Your task to perform on an android device: Check the news Image 0: 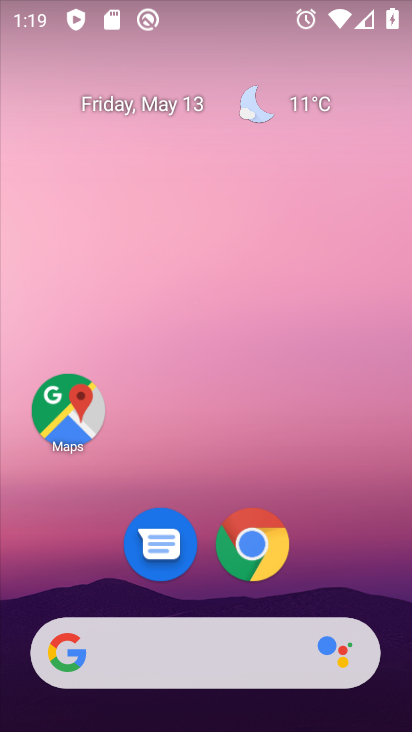
Step 0: press home button
Your task to perform on an android device: Check the news Image 1: 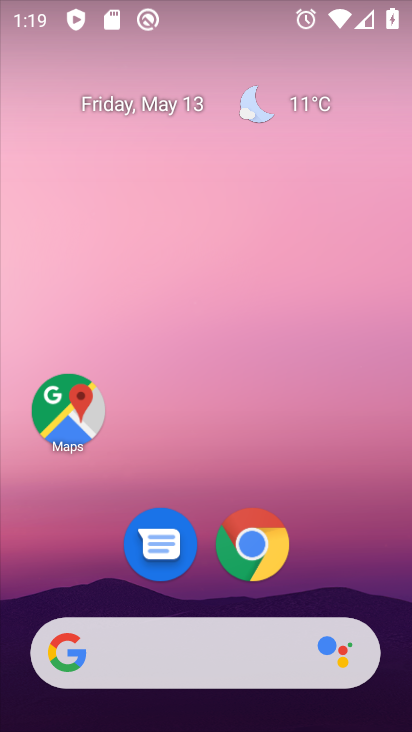
Step 1: click (259, 542)
Your task to perform on an android device: Check the news Image 2: 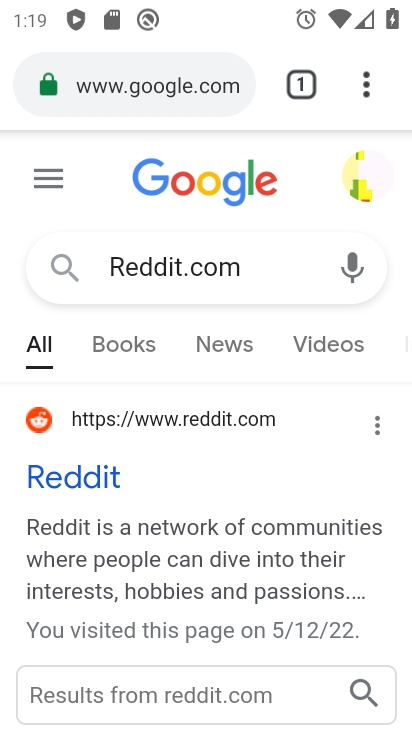
Step 2: click (90, 76)
Your task to perform on an android device: Check the news Image 3: 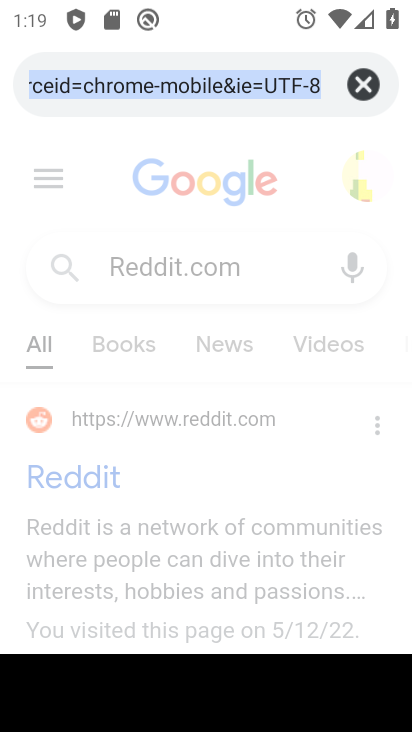
Step 3: type "news"
Your task to perform on an android device: Check the news Image 4: 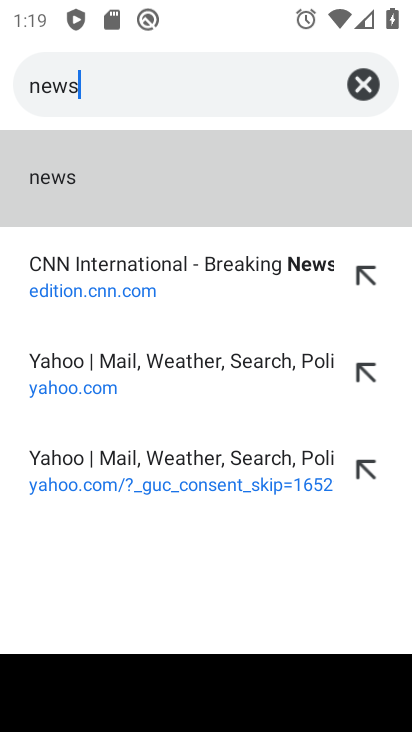
Step 4: click (137, 197)
Your task to perform on an android device: Check the news Image 5: 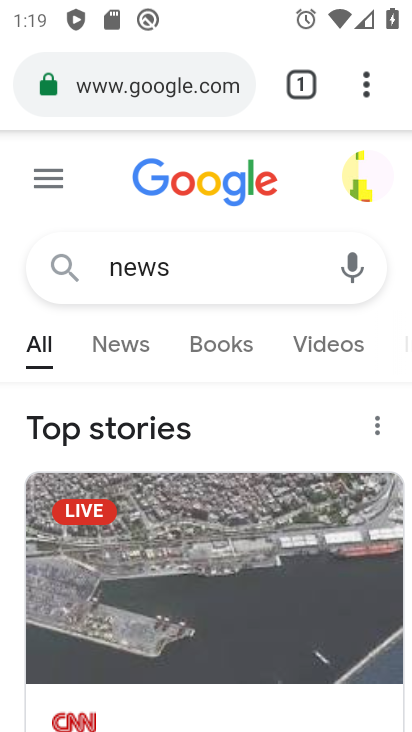
Step 5: task complete